Your task to perform on an android device: turn on location history Image 0: 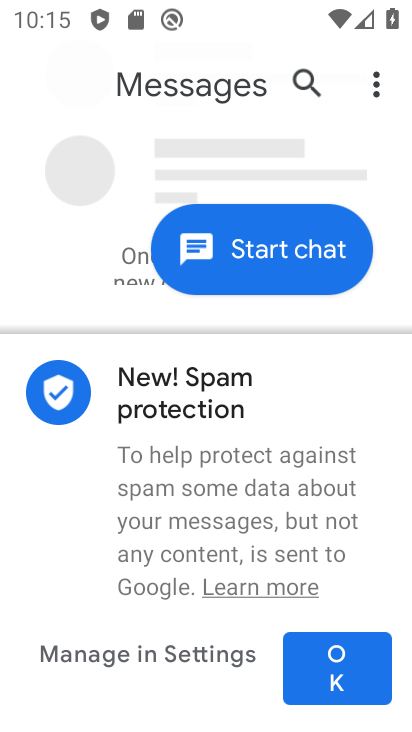
Step 0: press home button
Your task to perform on an android device: turn on location history Image 1: 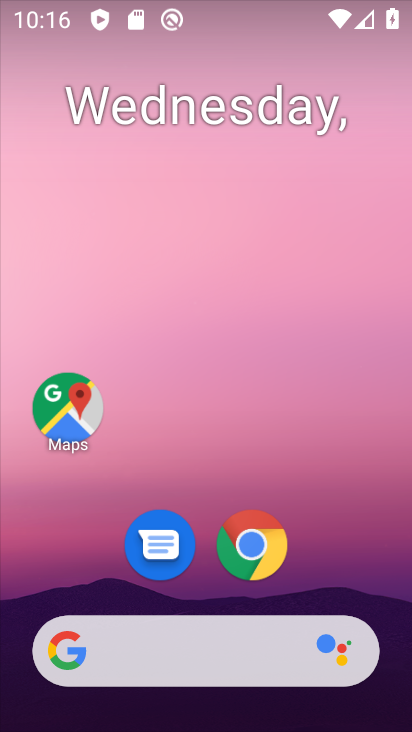
Step 1: drag from (203, 576) to (191, 208)
Your task to perform on an android device: turn on location history Image 2: 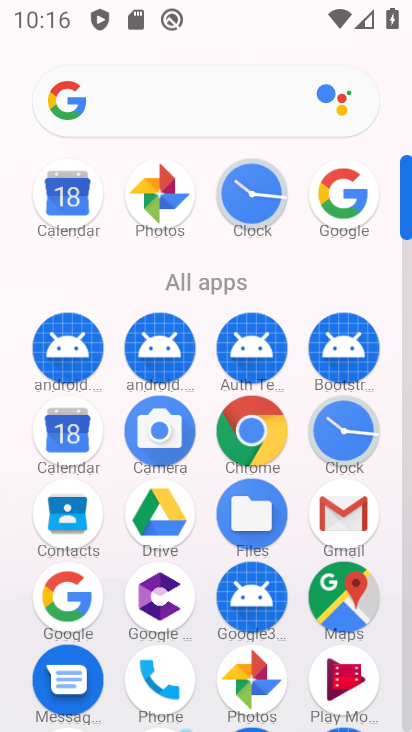
Step 2: drag from (121, 593) to (189, 301)
Your task to perform on an android device: turn on location history Image 3: 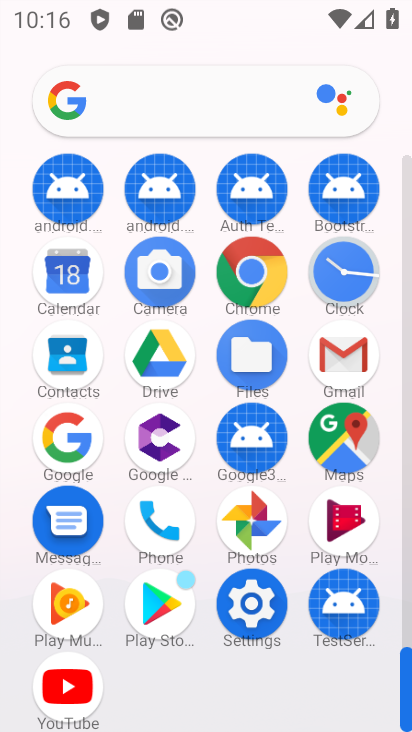
Step 3: click (240, 601)
Your task to perform on an android device: turn on location history Image 4: 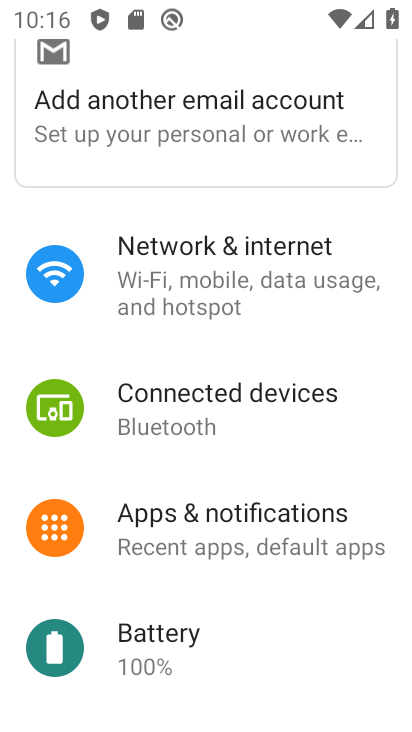
Step 4: drag from (199, 589) to (268, 247)
Your task to perform on an android device: turn on location history Image 5: 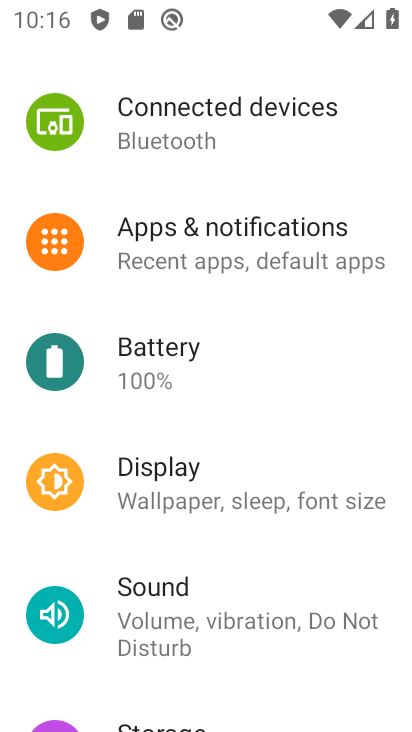
Step 5: drag from (217, 594) to (277, 318)
Your task to perform on an android device: turn on location history Image 6: 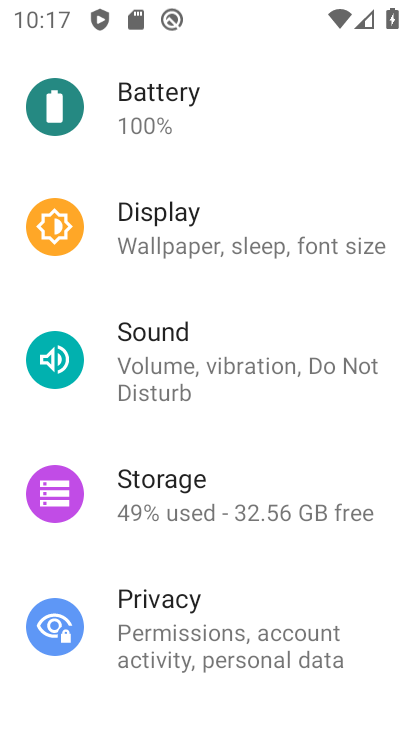
Step 6: drag from (199, 564) to (213, 262)
Your task to perform on an android device: turn on location history Image 7: 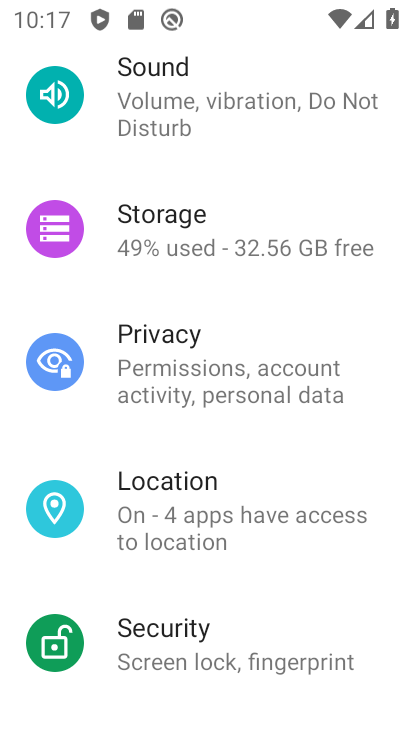
Step 7: click (216, 502)
Your task to perform on an android device: turn on location history Image 8: 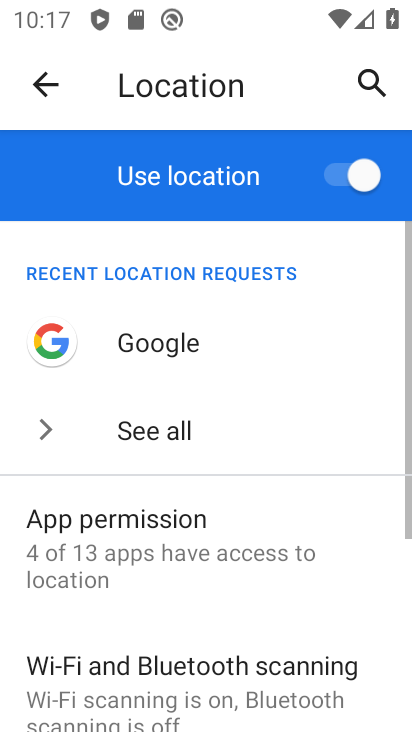
Step 8: drag from (282, 569) to (311, 353)
Your task to perform on an android device: turn on location history Image 9: 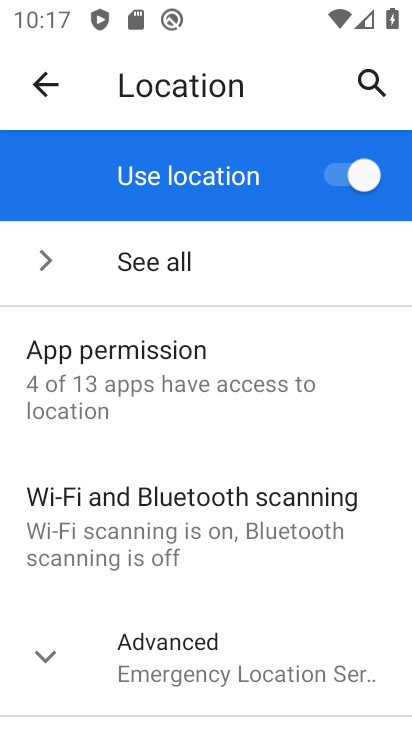
Step 9: click (220, 630)
Your task to perform on an android device: turn on location history Image 10: 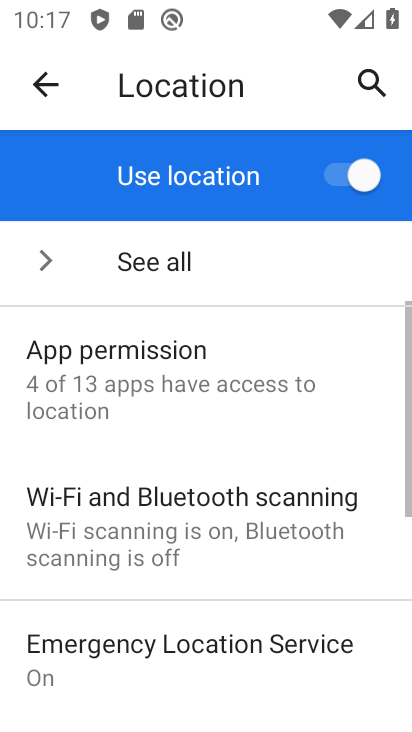
Step 10: drag from (240, 614) to (277, 338)
Your task to perform on an android device: turn on location history Image 11: 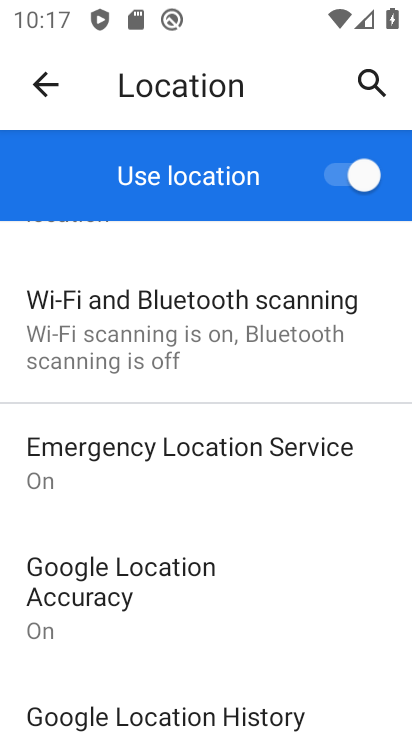
Step 11: drag from (206, 666) to (235, 467)
Your task to perform on an android device: turn on location history Image 12: 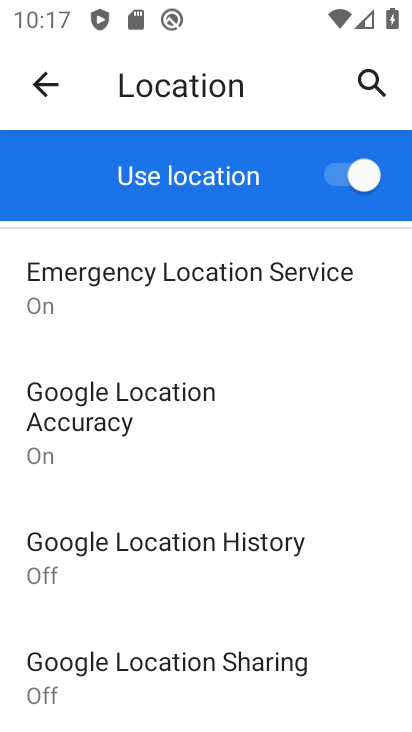
Step 12: click (219, 566)
Your task to perform on an android device: turn on location history Image 13: 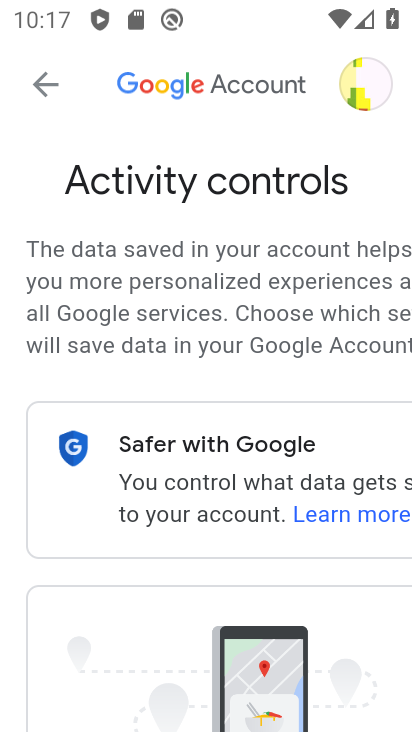
Step 13: task complete